Your task to perform on an android device: open device folders in google photos Image 0: 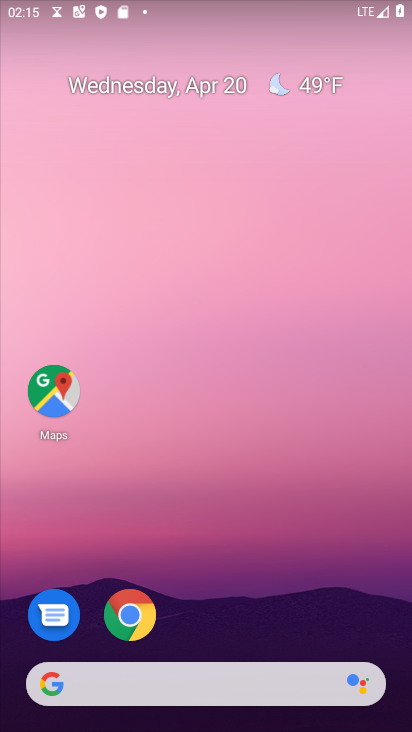
Step 0: drag from (277, 638) to (350, 195)
Your task to perform on an android device: open device folders in google photos Image 1: 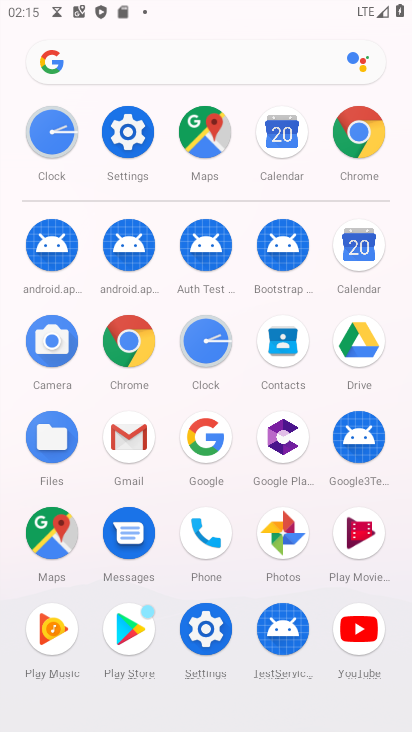
Step 1: click (281, 540)
Your task to perform on an android device: open device folders in google photos Image 2: 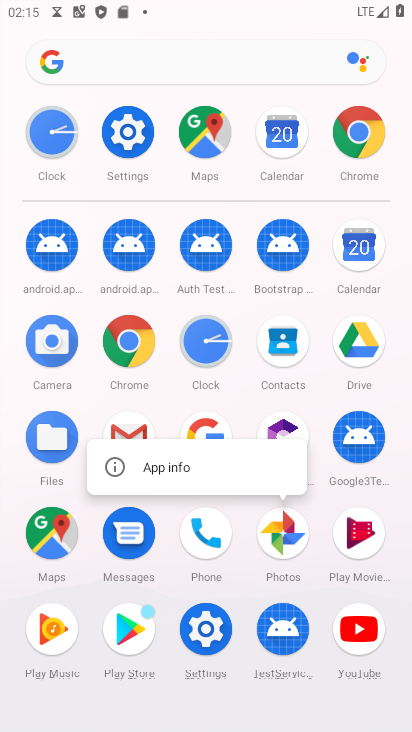
Step 2: click (148, 470)
Your task to perform on an android device: open device folders in google photos Image 3: 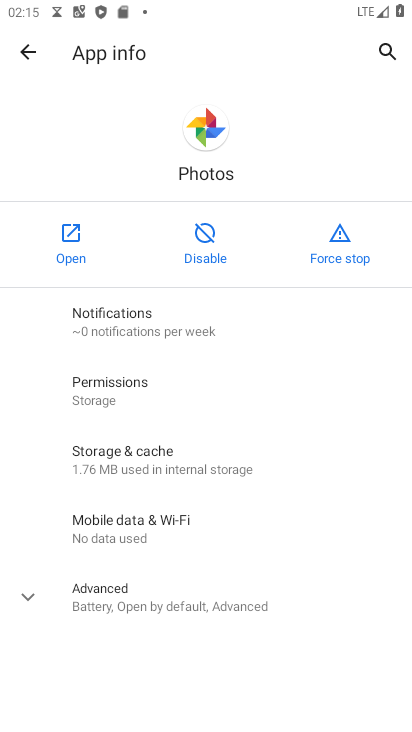
Step 3: click (89, 262)
Your task to perform on an android device: open device folders in google photos Image 4: 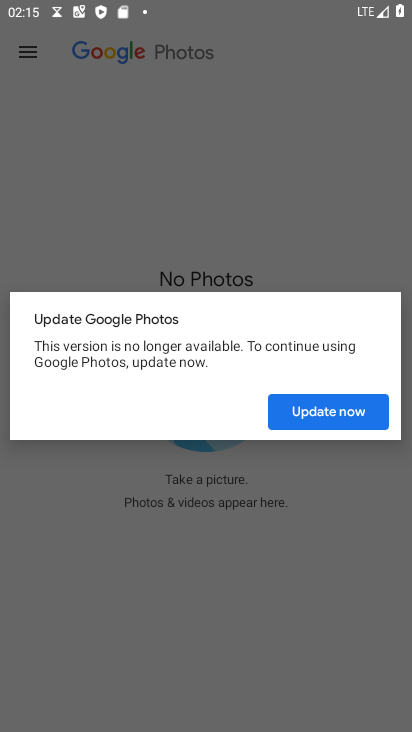
Step 4: click (365, 404)
Your task to perform on an android device: open device folders in google photos Image 5: 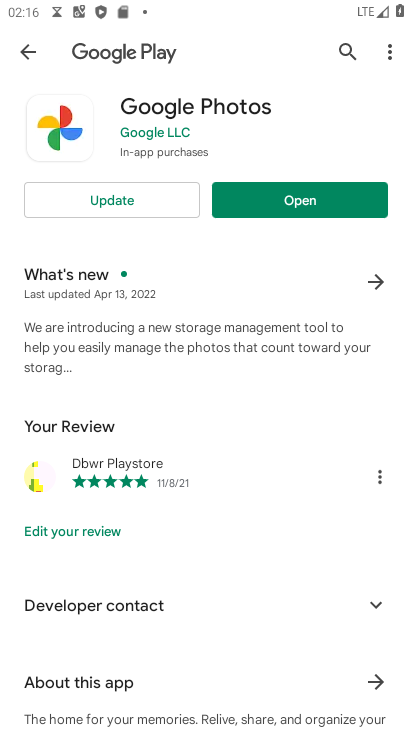
Step 5: click (147, 206)
Your task to perform on an android device: open device folders in google photos Image 6: 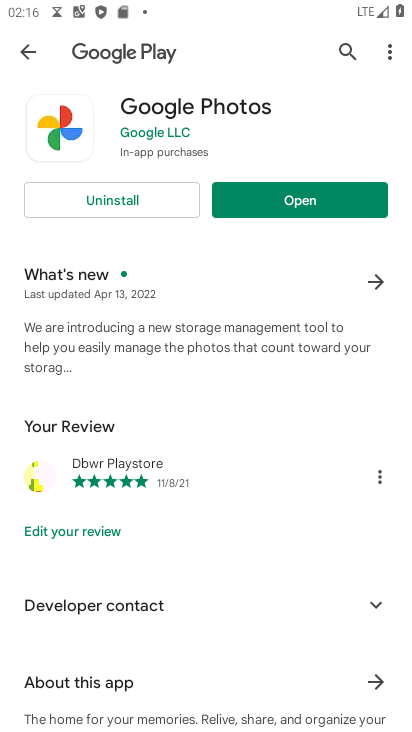
Step 6: click (299, 202)
Your task to perform on an android device: open device folders in google photos Image 7: 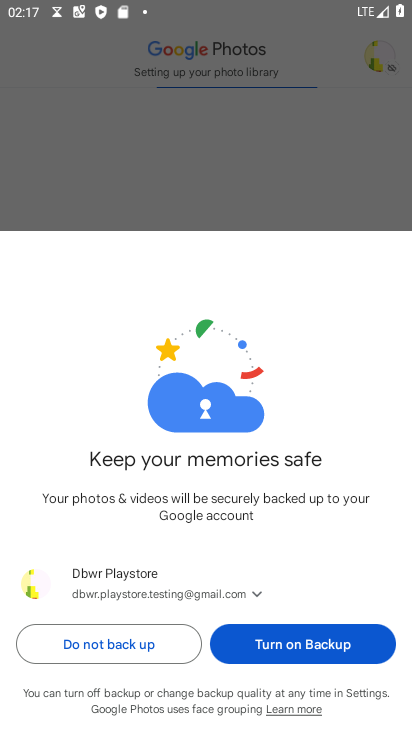
Step 7: click (122, 631)
Your task to perform on an android device: open device folders in google photos Image 8: 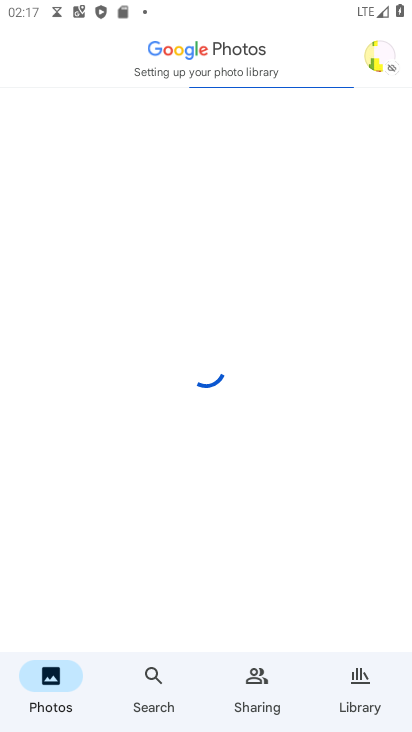
Step 8: click (159, 676)
Your task to perform on an android device: open device folders in google photos Image 9: 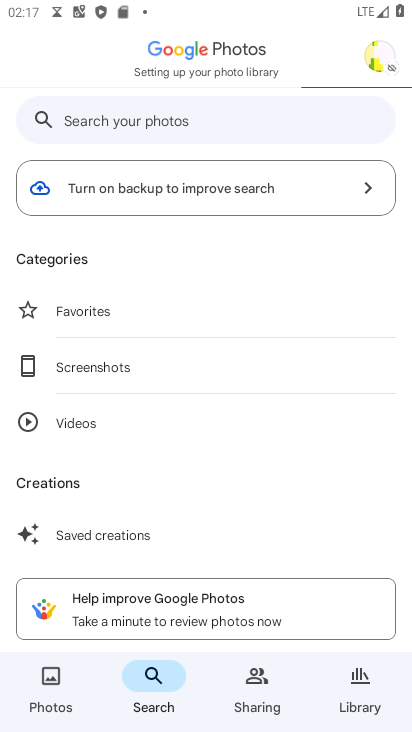
Step 9: click (173, 112)
Your task to perform on an android device: open device folders in google photos Image 10: 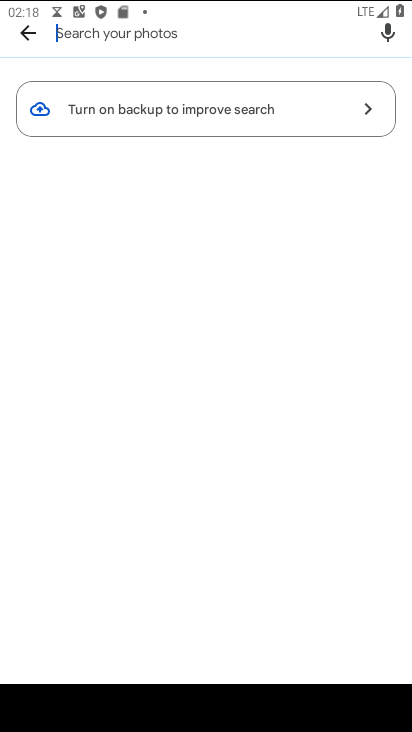
Step 10: type "device folders "
Your task to perform on an android device: open device folders in google photos Image 11: 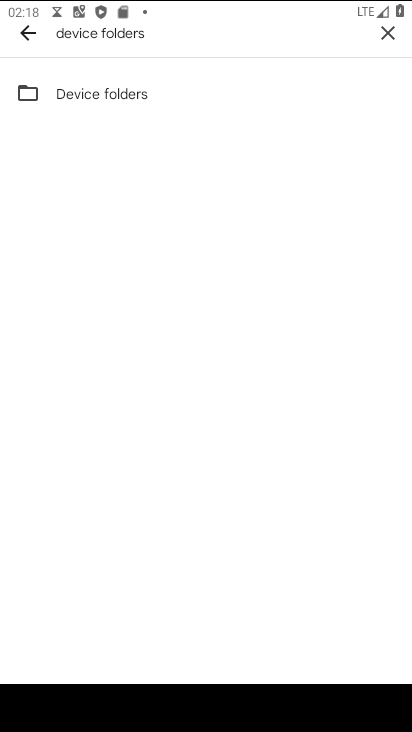
Step 11: click (164, 98)
Your task to perform on an android device: open device folders in google photos Image 12: 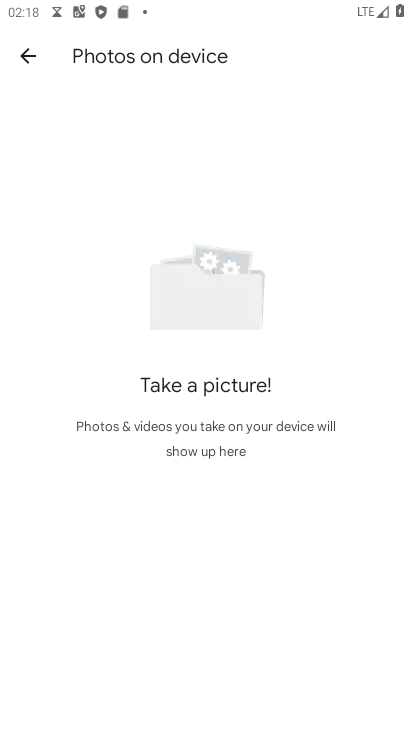
Step 12: task complete